Your task to perform on an android device: check out phone information Image 0: 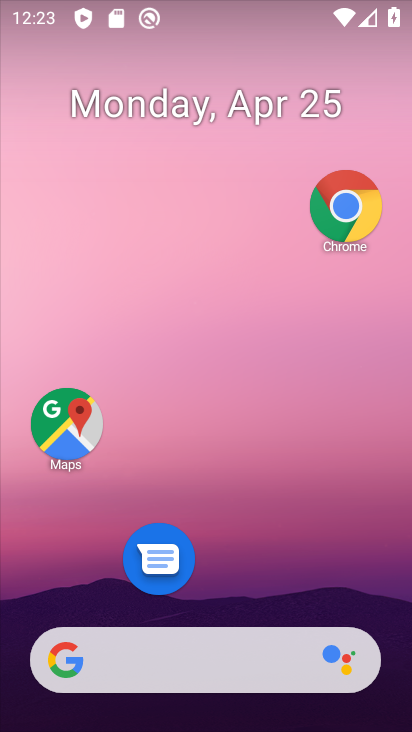
Step 0: click (116, 313)
Your task to perform on an android device: check out phone information Image 1: 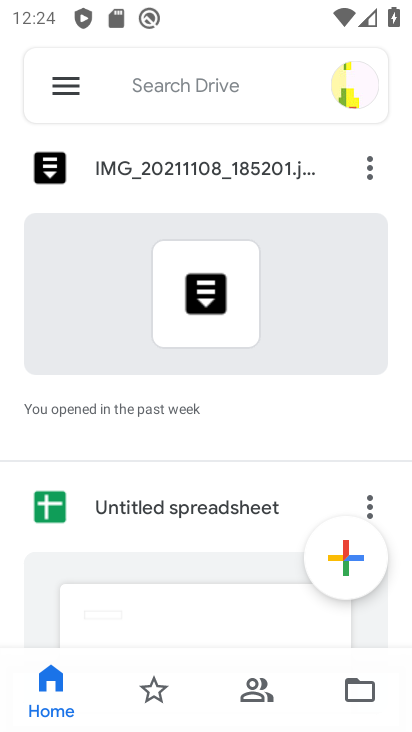
Step 1: press back button
Your task to perform on an android device: check out phone information Image 2: 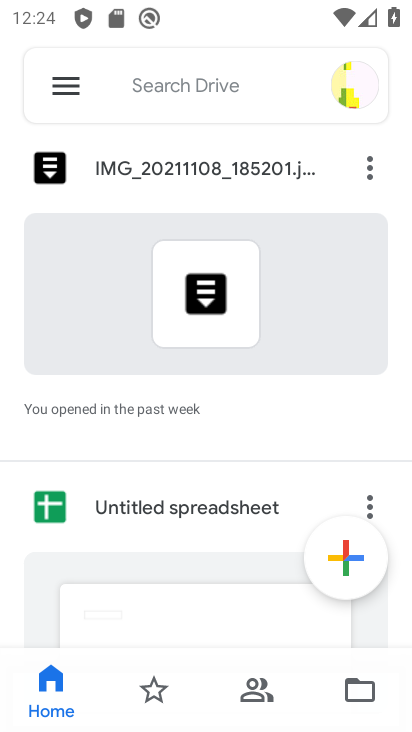
Step 2: press back button
Your task to perform on an android device: check out phone information Image 3: 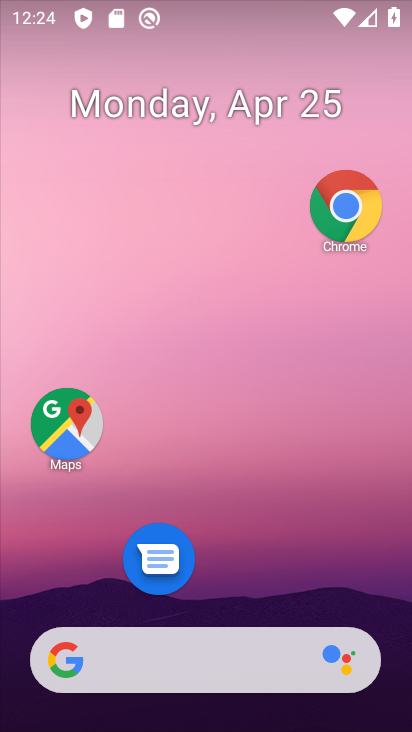
Step 3: press back button
Your task to perform on an android device: check out phone information Image 4: 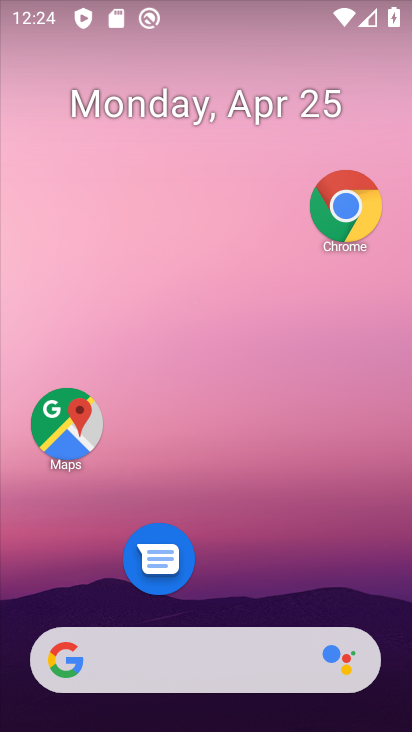
Step 4: drag from (250, 454) to (258, 46)
Your task to perform on an android device: check out phone information Image 5: 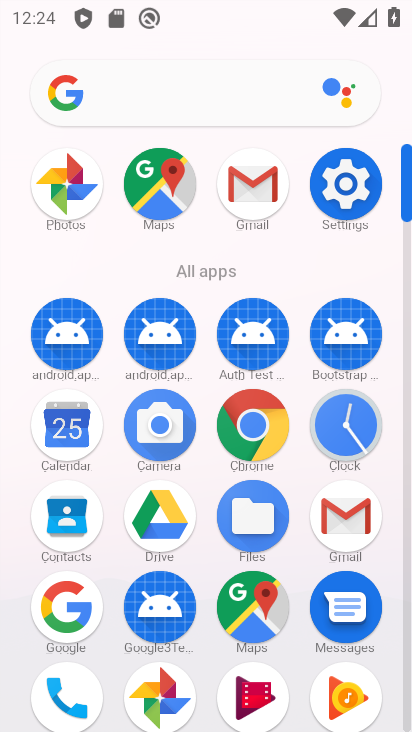
Step 5: click (347, 186)
Your task to perform on an android device: check out phone information Image 6: 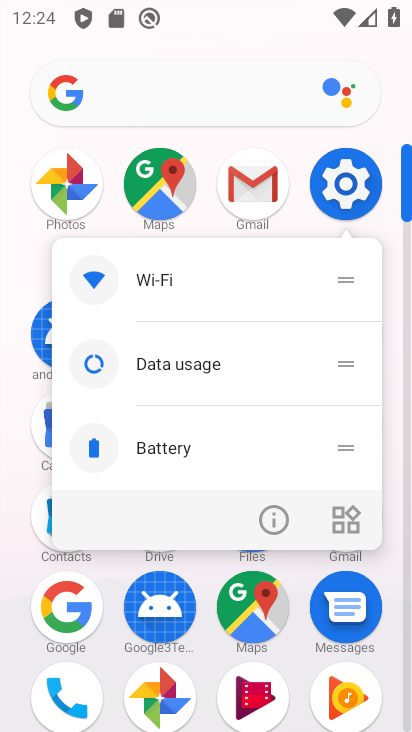
Step 6: click (349, 177)
Your task to perform on an android device: check out phone information Image 7: 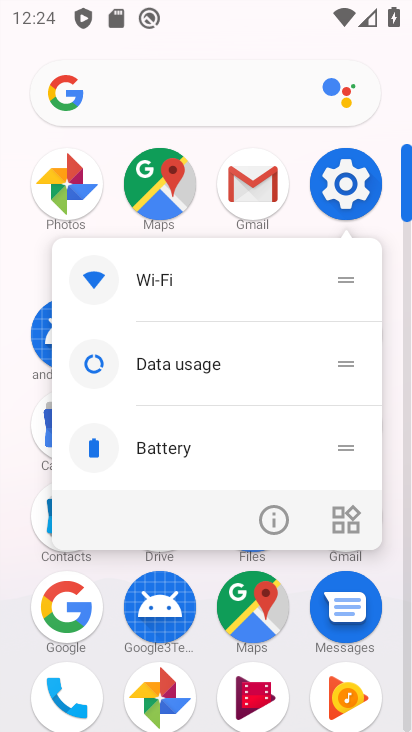
Step 7: click (346, 177)
Your task to perform on an android device: check out phone information Image 8: 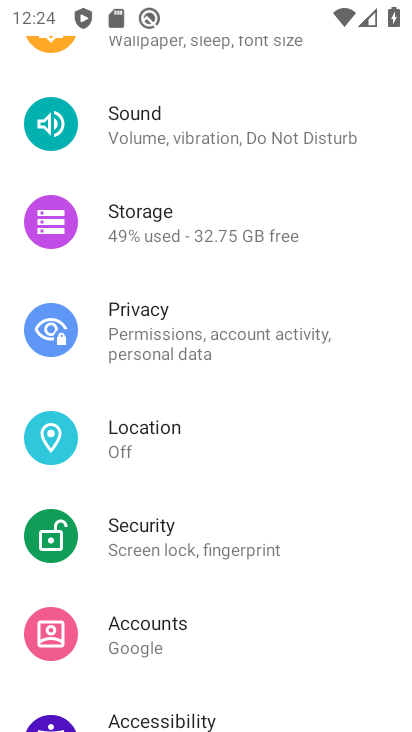
Step 8: drag from (216, 221) to (247, 157)
Your task to perform on an android device: check out phone information Image 9: 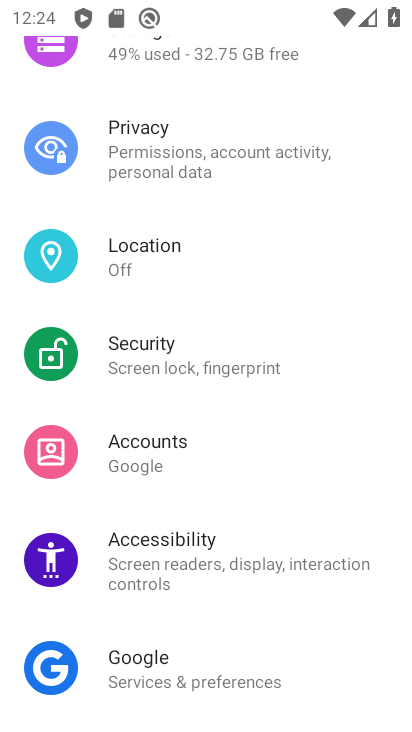
Step 9: drag from (223, 516) to (284, 86)
Your task to perform on an android device: check out phone information Image 10: 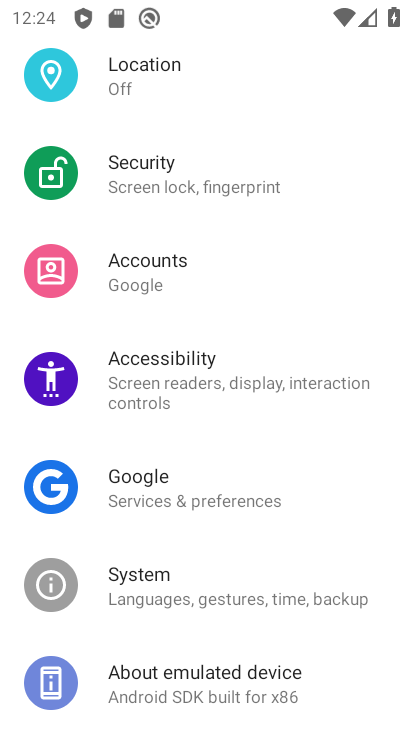
Step 10: drag from (192, 626) to (244, 74)
Your task to perform on an android device: check out phone information Image 11: 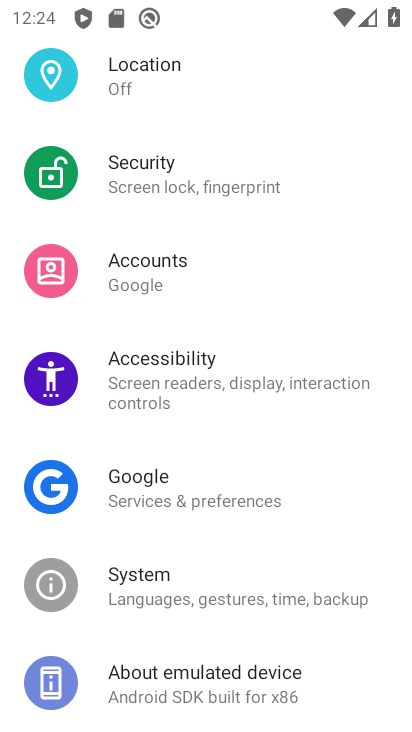
Step 11: click (201, 592)
Your task to perform on an android device: check out phone information Image 12: 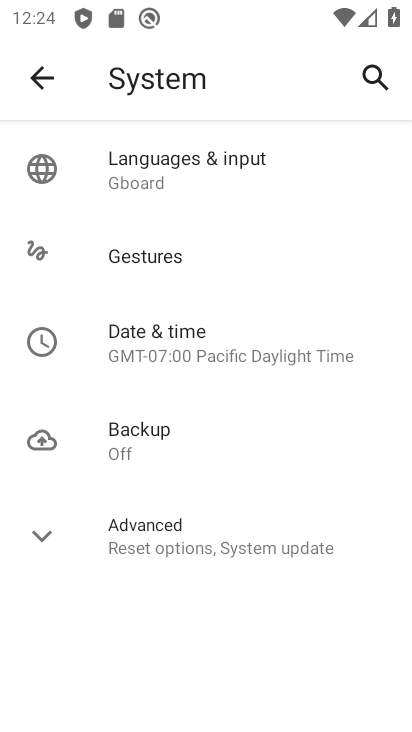
Step 12: click (43, 74)
Your task to perform on an android device: check out phone information Image 13: 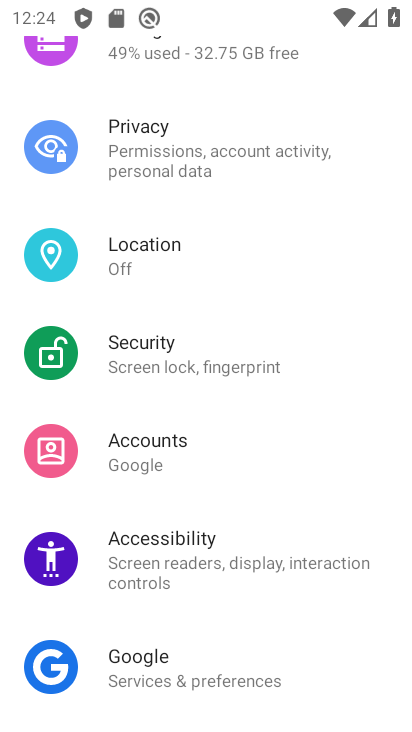
Step 13: drag from (214, 633) to (271, 56)
Your task to perform on an android device: check out phone information Image 14: 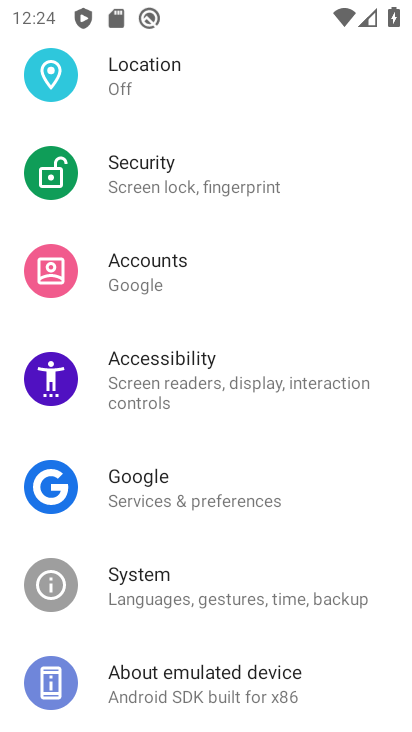
Step 14: click (203, 682)
Your task to perform on an android device: check out phone information Image 15: 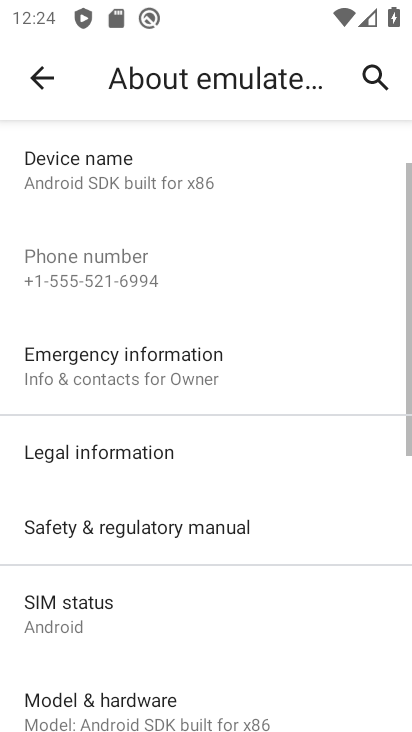
Step 15: task complete